Your task to perform on an android device: turn vacation reply on in the gmail app Image 0: 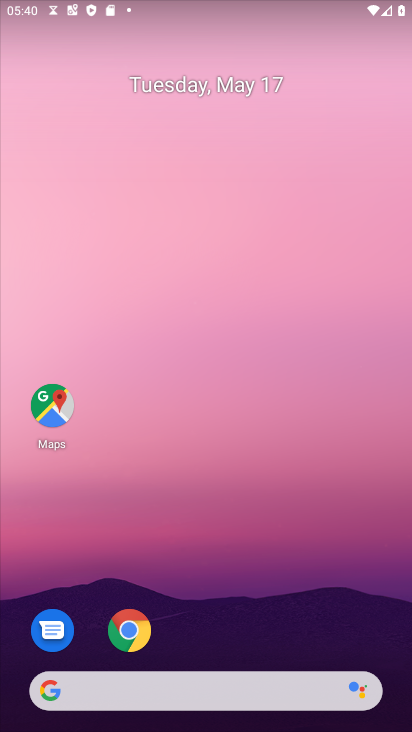
Step 0: press home button
Your task to perform on an android device: turn vacation reply on in the gmail app Image 1: 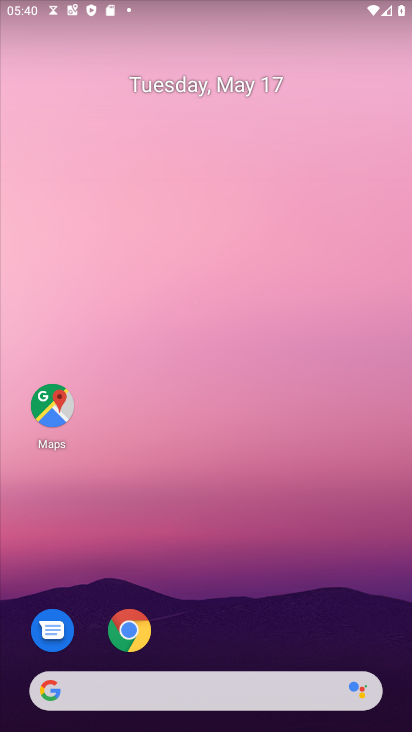
Step 1: drag from (186, 624) to (187, 124)
Your task to perform on an android device: turn vacation reply on in the gmail app Image 2: 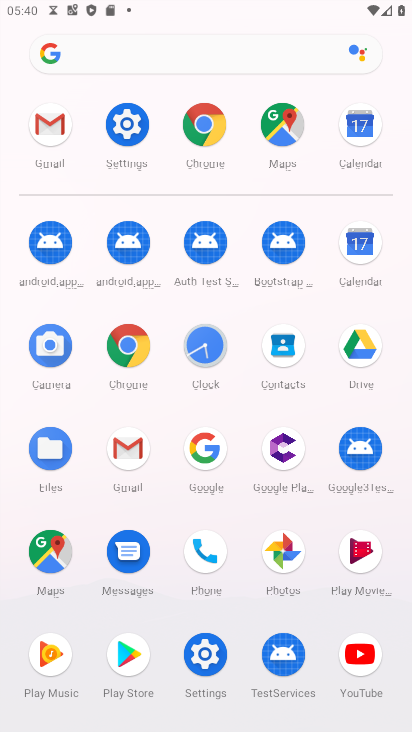
Step 2: click (45, 128)
Your task to perform on an android device: turn vacation reply on in the gmail app Image 3: 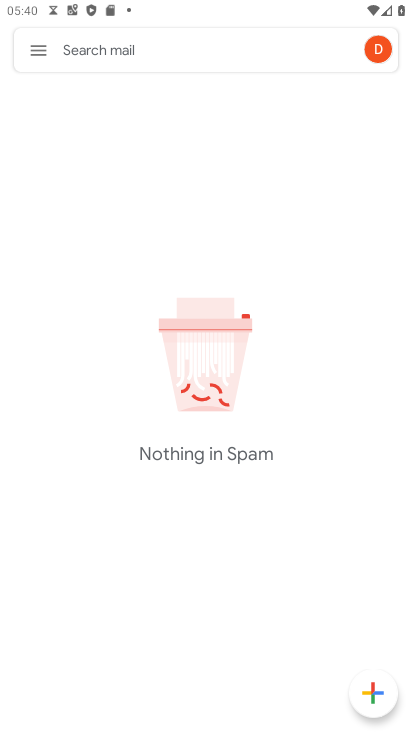
Step 3: click (29, 43)
Your task to perform on an android device: turn vacation reply on in the gmail app Image 4: 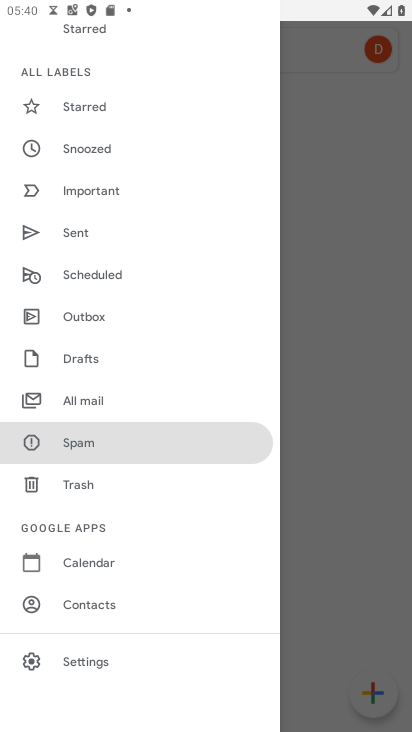
Step 4: click (53, 663)
Your task to perform on an android device: turn vacation reply on in the gmail app Image 5: 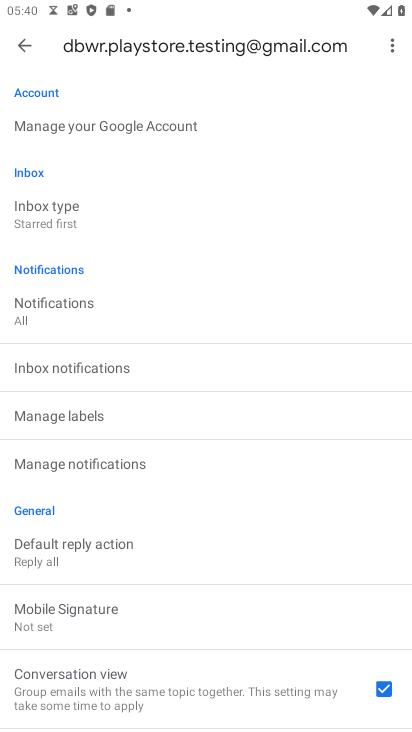
Step 5: drag from (181, 639) to (249, 91)
Your task to perform on an android device: turn vacation reply on in the gmail app Image 6: 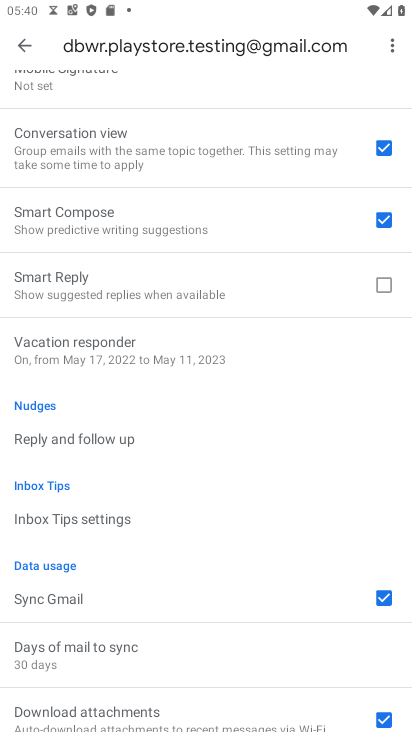
Step 6: click (122, 365)
Your task to perform on an android device: turn vacation reply on in the gmail app Image 7: 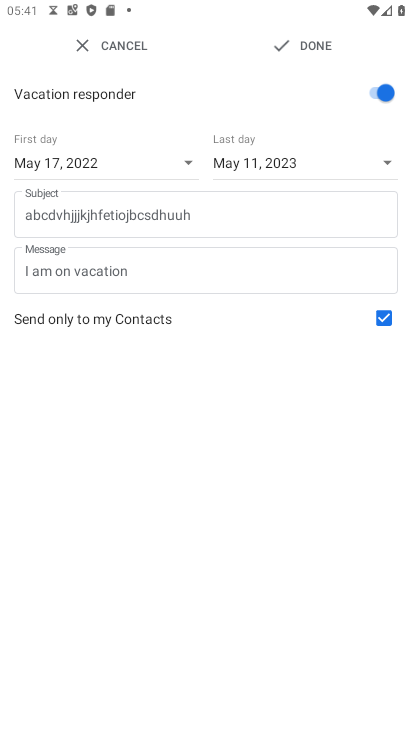
Step 7: click (303, 39)
Your task to perform on an android device: turn vacation reply on in the gmail app Image 8: 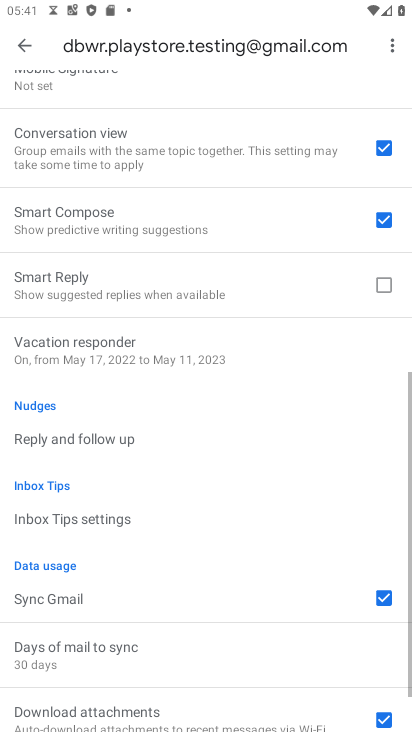
Step 8: task complete